Your task to perform on an android device: turn notification dots on Image 0: 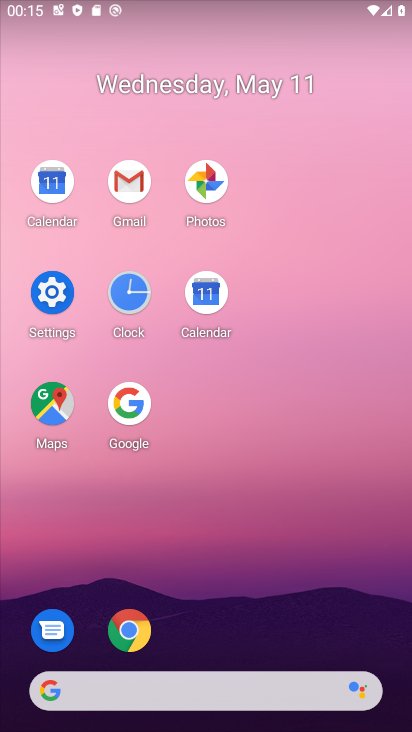
Step 0: click (44, 291)
Your task to perform on an android device: turn notification dots on Image 1: 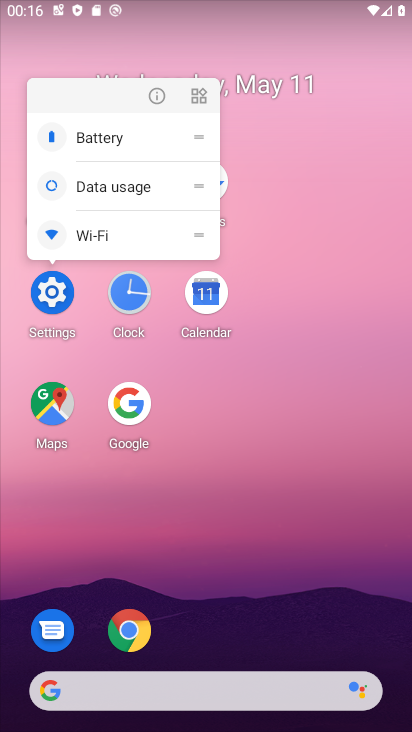
Step 1: click (51, 306)
Your task to perform on an android device: turn notification dots on Image 2: 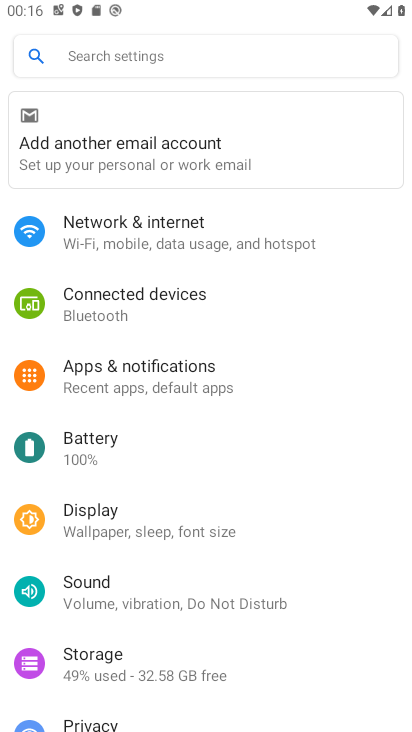
Step 2: click (260, 387)
Your task to perform on an android device: turn notification dots on Image 3: 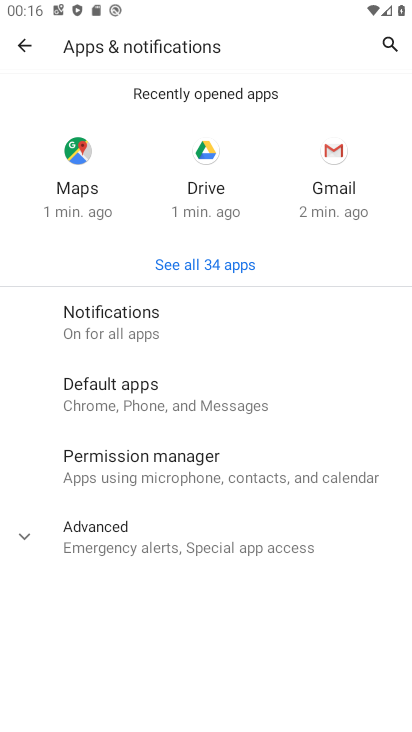
Step 3: click (237, 307)
Your task to perform on an android device: turn notification dots on Image 4: 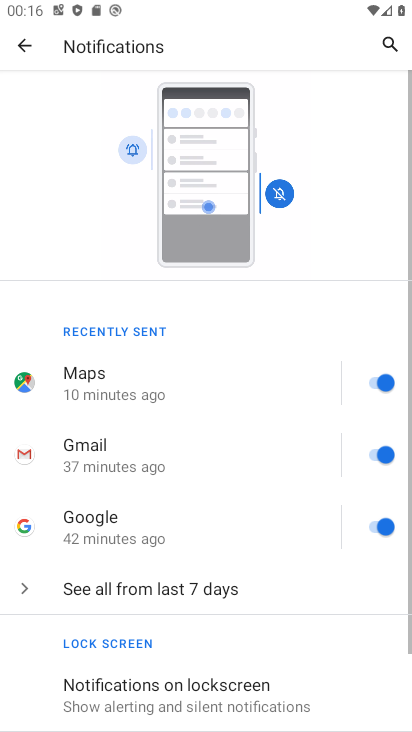
Step 4: drag from (221, 619) to (301, 222)
Your task to perform on an android device: turn notification dots on Image 5: 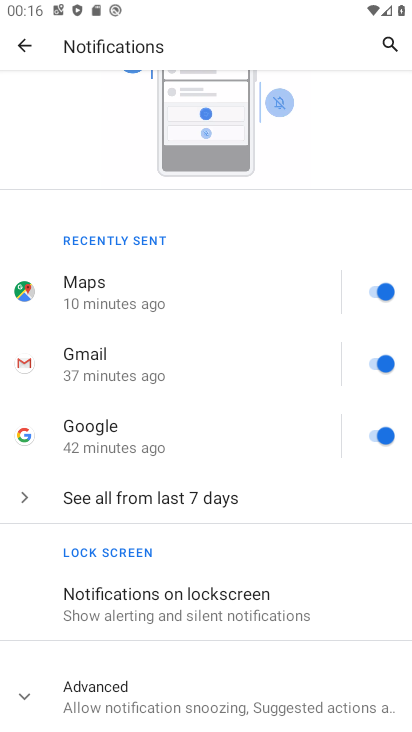
Step 5: click (204, 687)
Your task to perform on an android device: turn notification dots on Image 6: 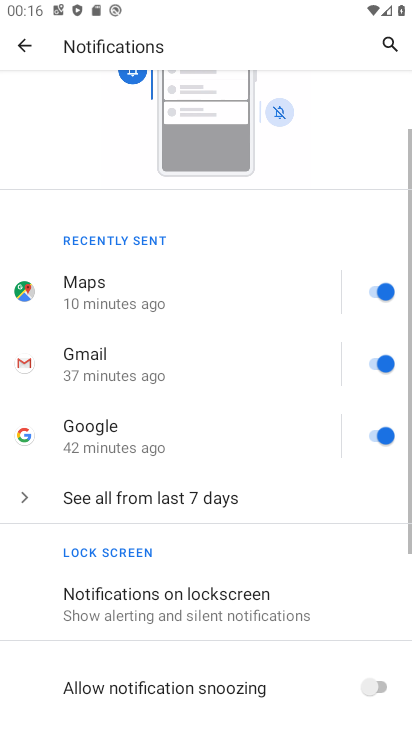
Step 6: task complete